Your task to perform on an android device: toggle location history Image 0: 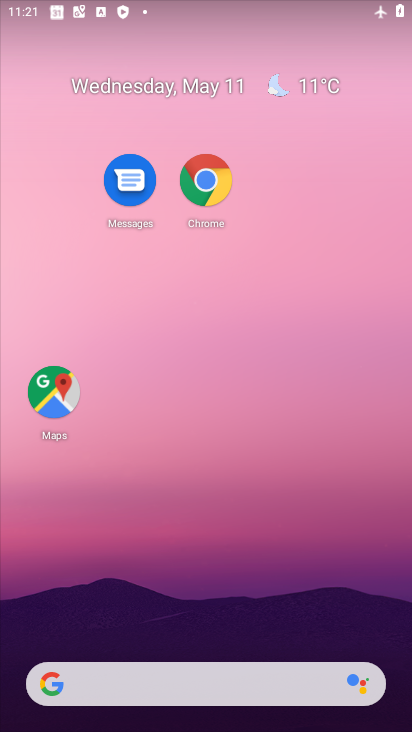
Step 0: drag from (208, 586) to (204, 108)
Your task to perform on an android device: toggle location history Image 1: 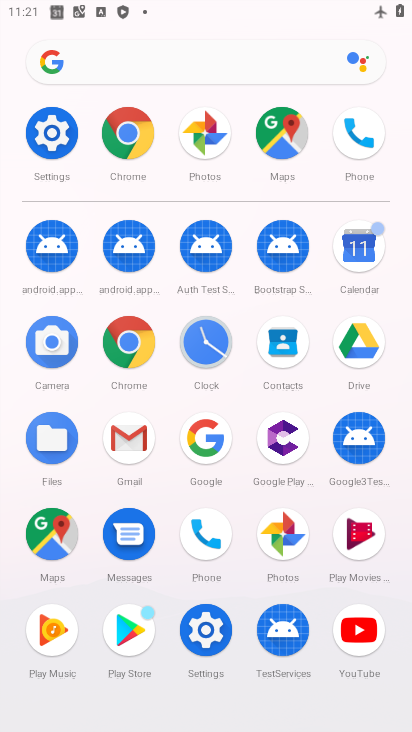
Step 1: click (36, 142)
Your task to perform on an android device: toggle location history Image 2: 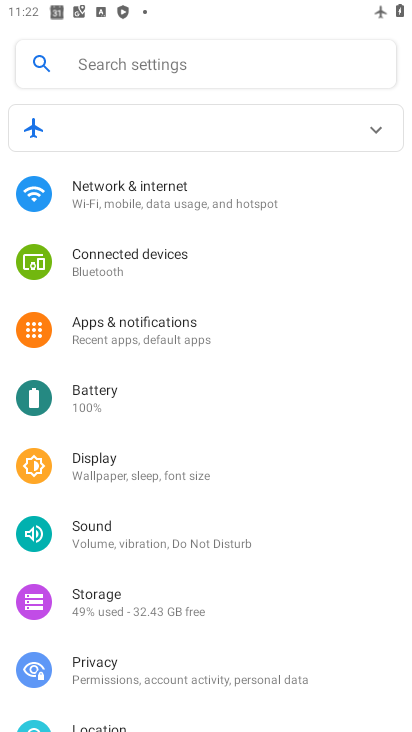
Step 2: drag from (117, 674) to (160, 341)
Your task to perform on an android device: toggle location history Image 3: 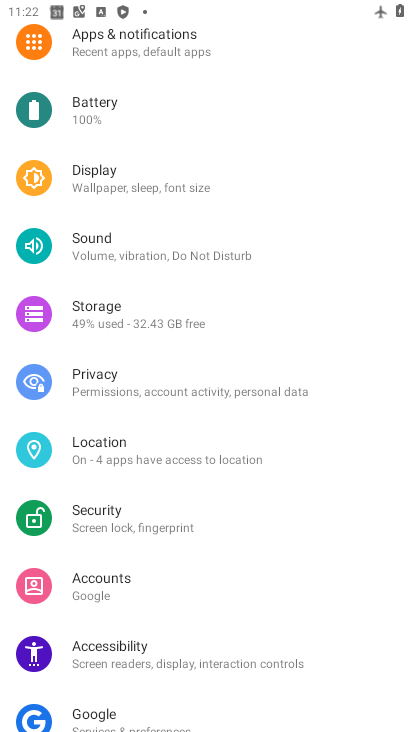
Step 3: click (104, 463)
Your task to perform on an android device: toggle location history Image 4: 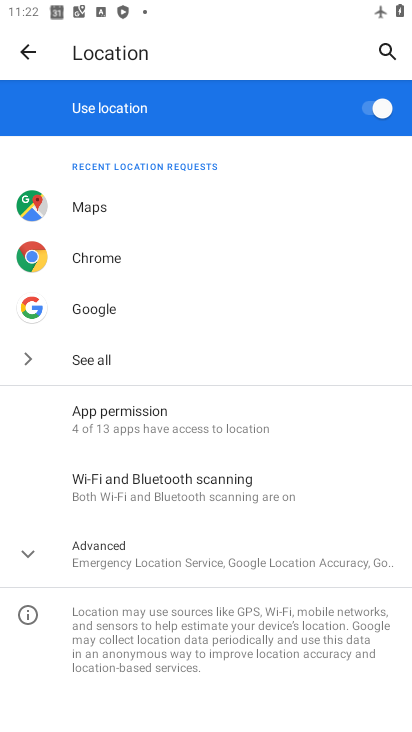
Step 4: click (158, 557)
Your task to perform on an android device: toggle location history Image 5: 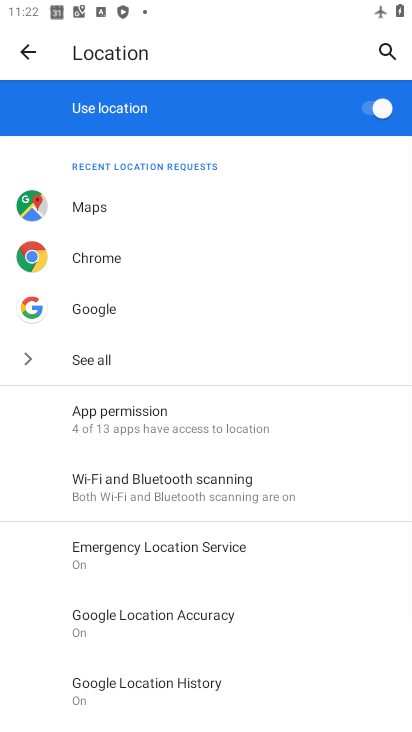
Step 5: drag from (162, 631) to (157, 378)
Your task to perform on an android device: toggle location history Image 6: 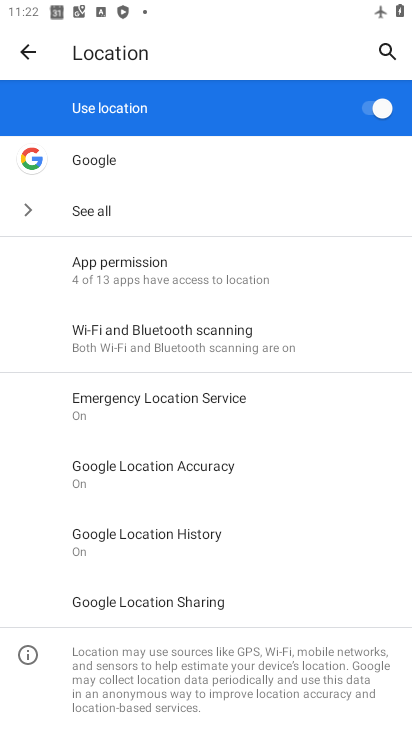
Step 6: click (192, 616)
Your task to perform on an android device: toggle location history Image 7: 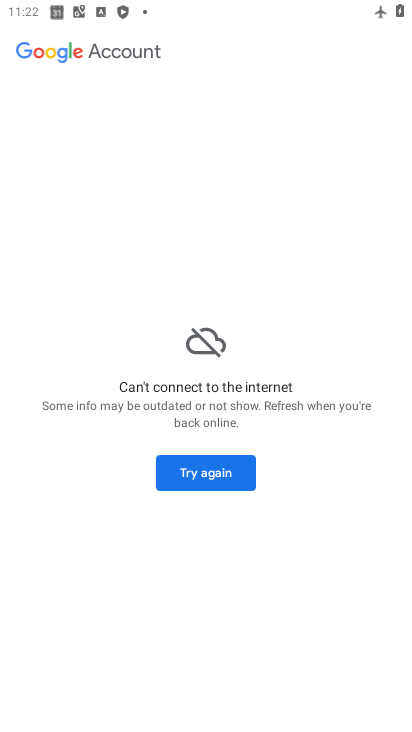
Step 7: task complete